Your task to perform on an android device: Toggle the flashlight Image 0: 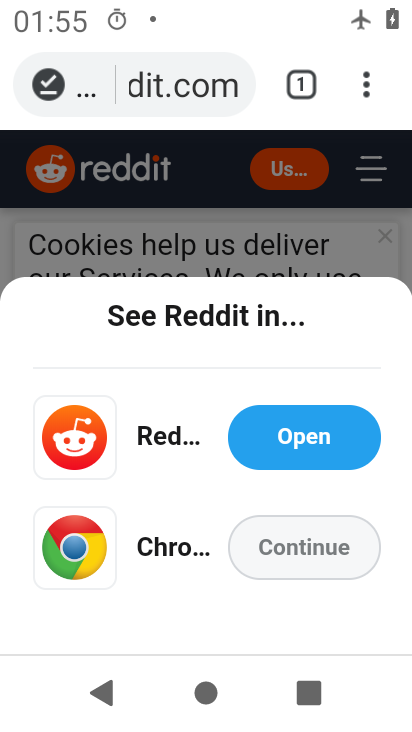
Step 0: press home button
Your task to perform on an android device: Toggle the flashlight Image 1: 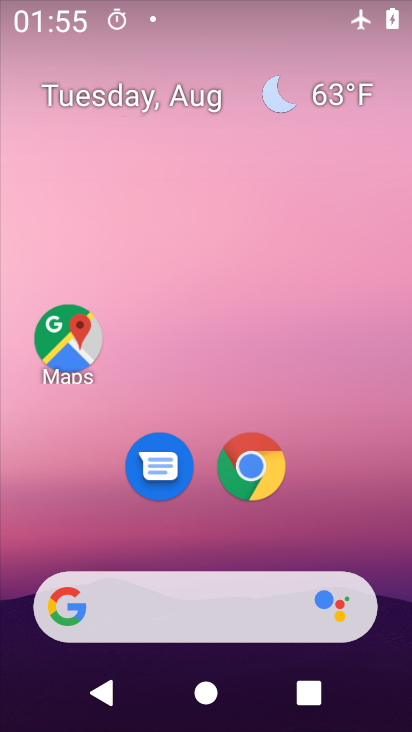
Step 1: drag from (261, 1) to (249, 326)
Your task to perform on an android device: Toggle the flashlight Image 2: 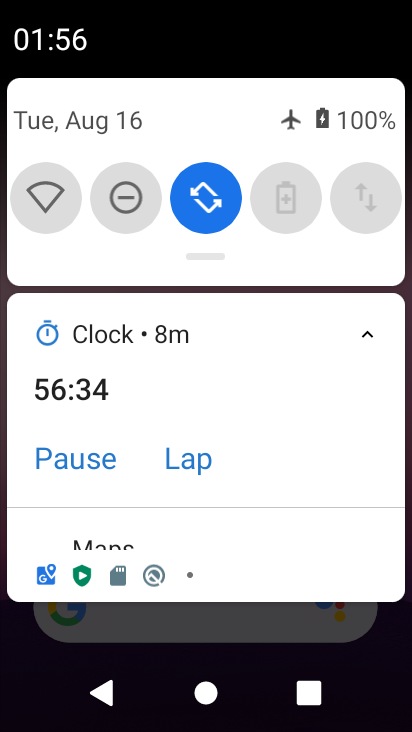
Step 2: drag from (254, 108) to (245, 399)
Your task to perform on an android device: Toggle the flashlight Image 3: 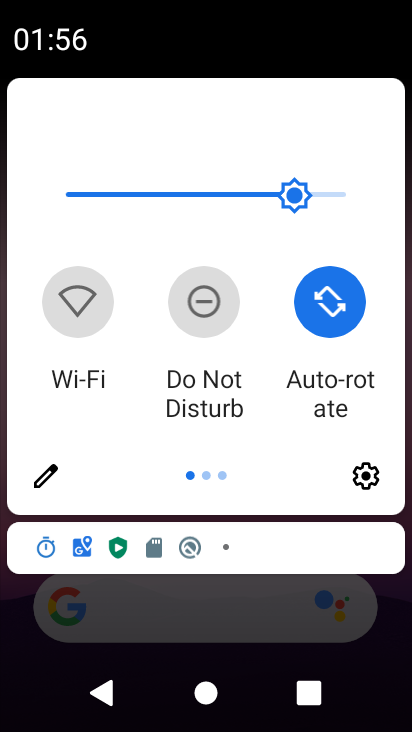
Step 3: click (43, 479)
Your task to perform on an android device: Toggle the flashlight Image 4: 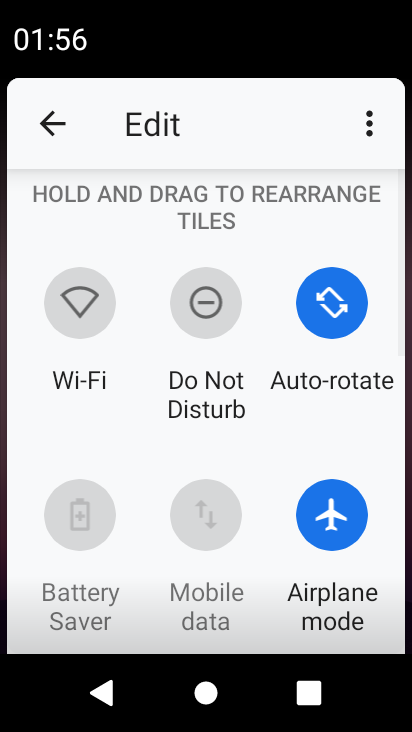
Step 4: task complete